Your task to perform on an android device: Do I have any events today? Image 0: 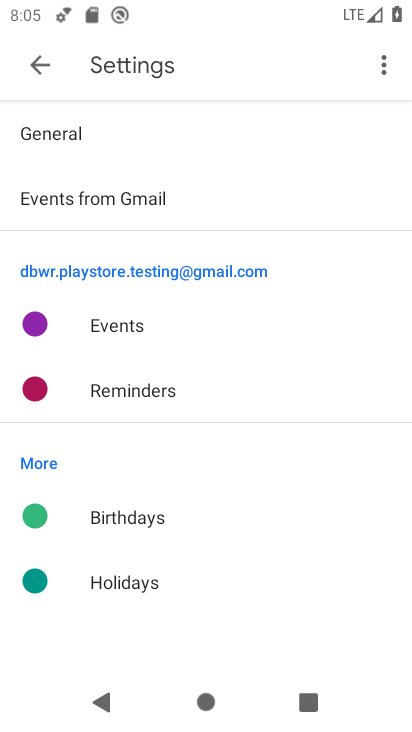
Step 0: drag from (379, 575) to (411, 597)
Your task to perform on an android device: Do I have any events today? Image 1: 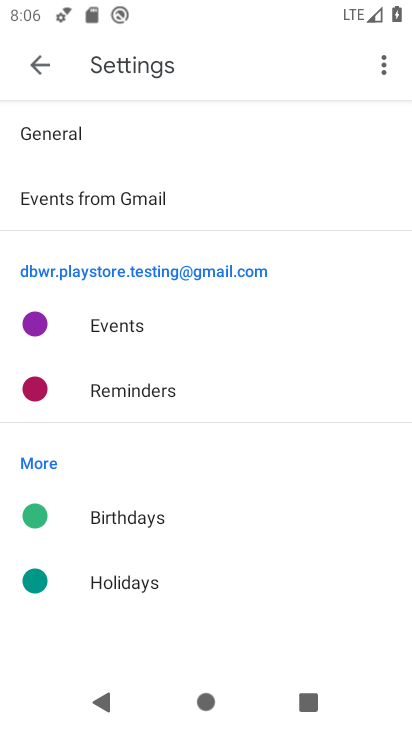
Step 1: press home button
Your task to perform on an android device: Do I have any events today? Image 2: 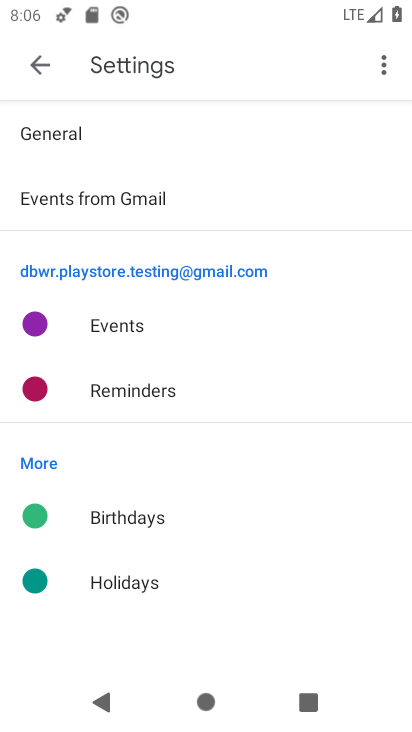
Step 2: drag from (411, 597) to (403, 516)
Your task to perform on an android device: Do I have any events today? Image 3: 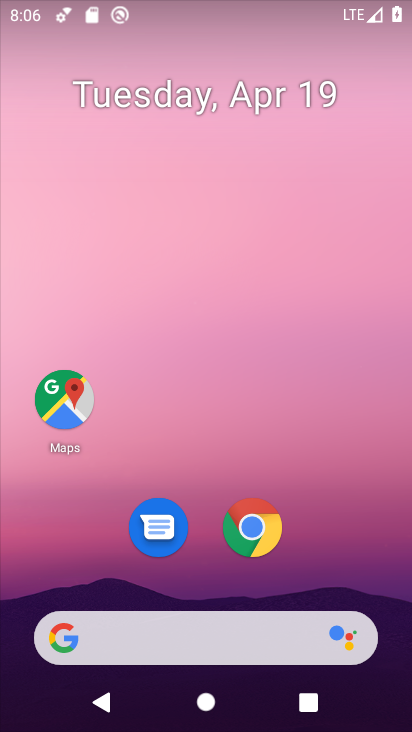
Step 3: drag from (370, 547) to (370, 151)
Your task to perform on an android device: Do I have any events today? Image 4: 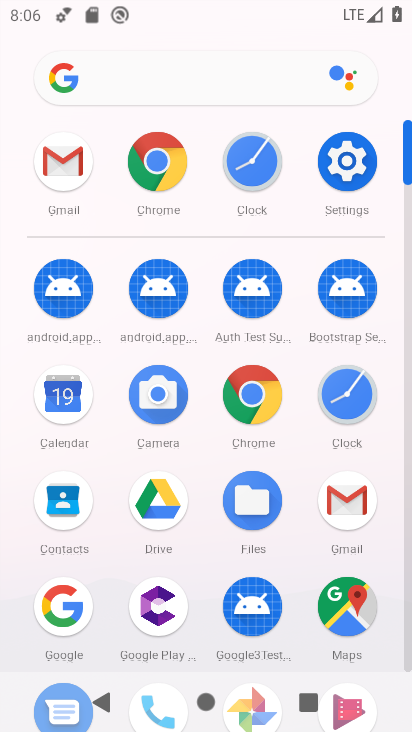
Step 4: click (61, 407)
Your task to perform on an android device: Do I have any events today? Image 5: 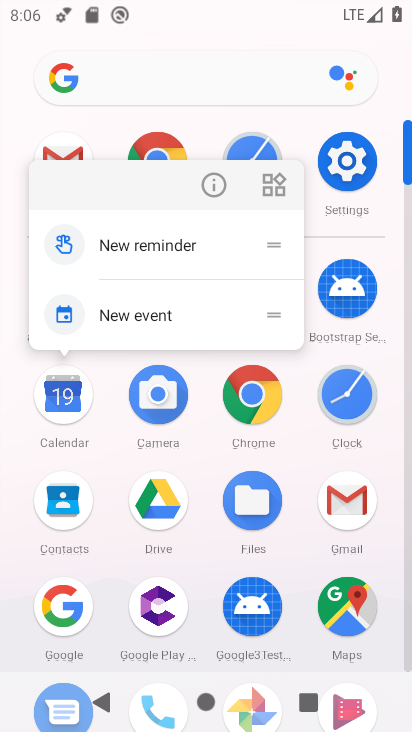
Step 5: click (61, 404)
Your task to perform on an android device: Do I have any events today? Image 6: 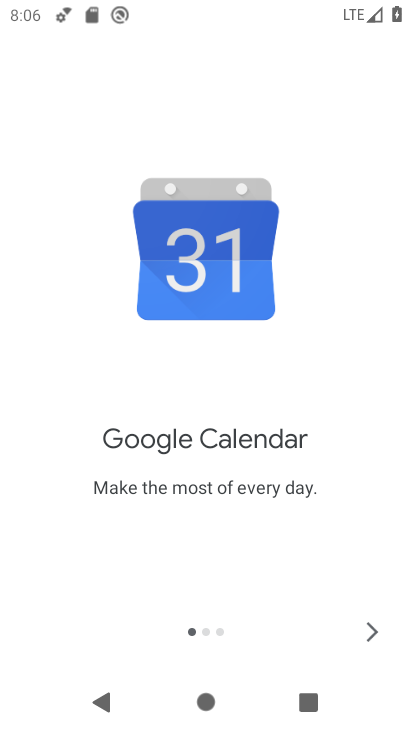
Step 6: click (370, 632)
Your task to perform on an android device: Do I have any events today? Image 7: 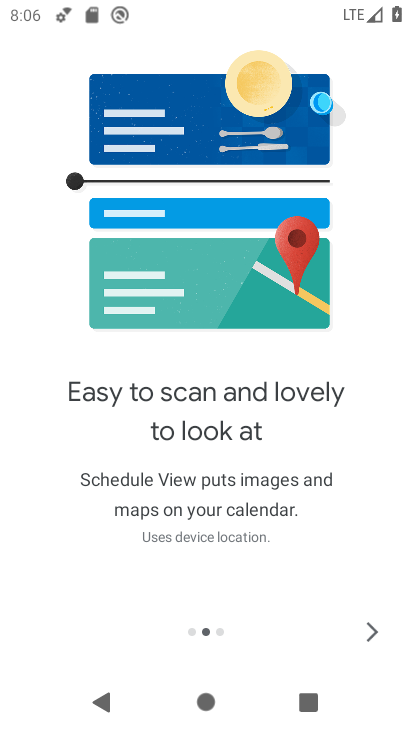
Step 7: click (370, 632)
Your task to perform on an android device: Do I have any events today? Image 8: 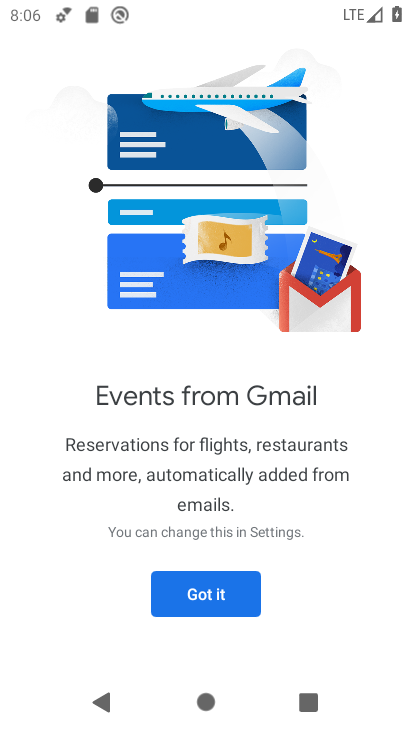
Step 8: click (235, 595)
Your task to perform on an android device: Do I have any events today? Image 9: 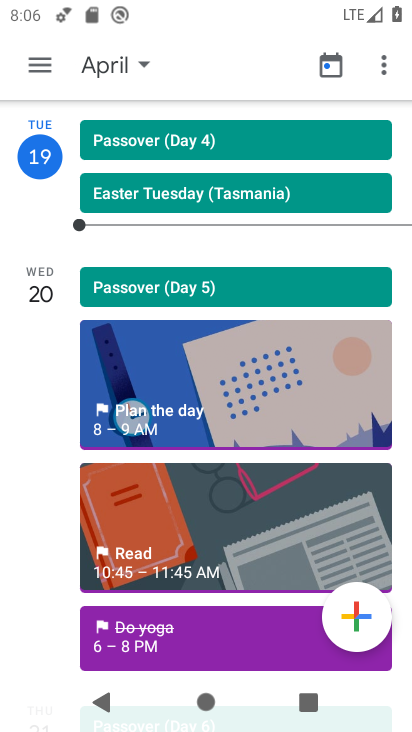
Step 9: task complete